Your task to perform on an android device: Go to Maps Image 0: 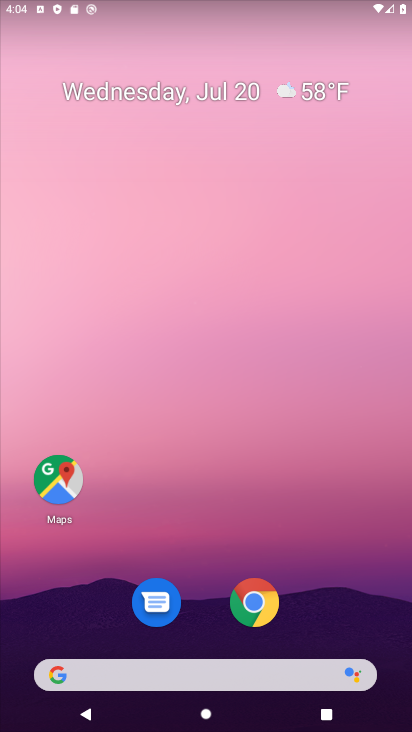
Step 0: click (55, 486)
Your task to perform on an android device: Go to Maps Image 1: 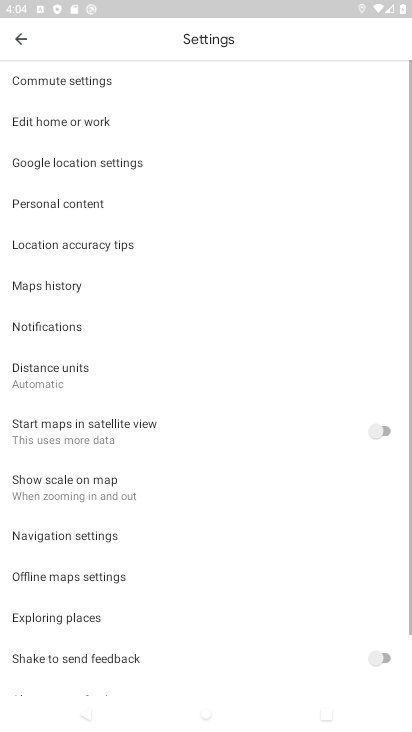
Step 1: click (19, 39)
Your task to perform on an android device: Go to Maps Image 2: 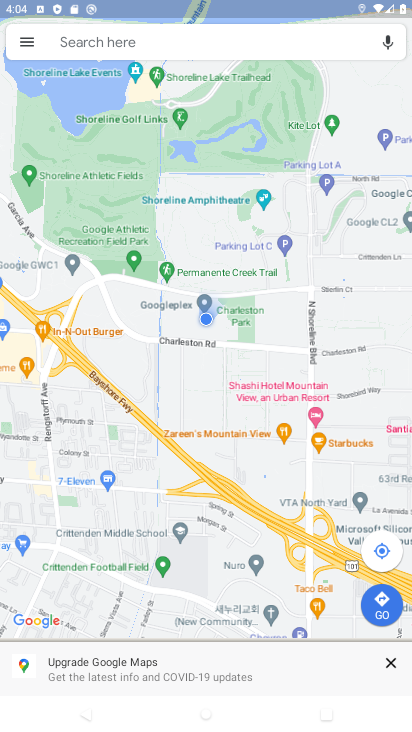
Step 2: task complete